Your task to perform on an android device: check android version Image 0: 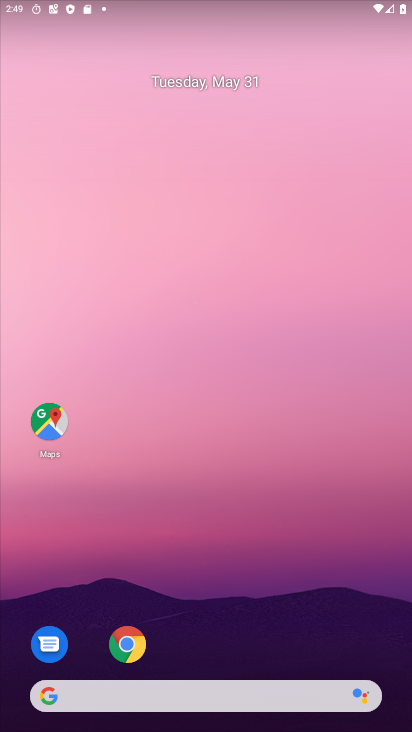
Step 0: drag from (394, 638) to (375, 90)
Your task to perform on an android device: check android version Image 1: 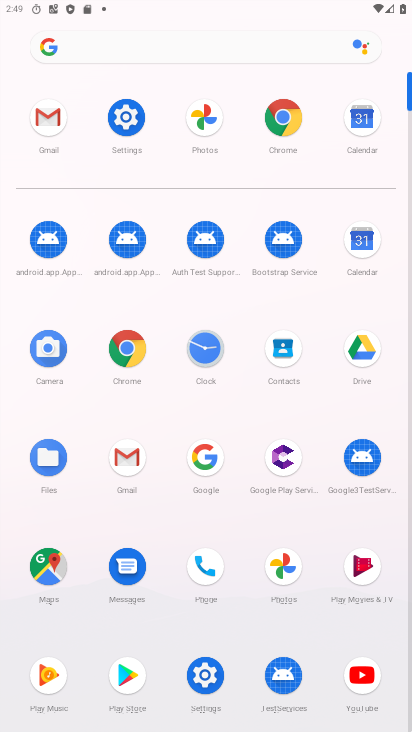
Step 1: click (142, 118)
Your task to perform on an android device: check android version Image 2: 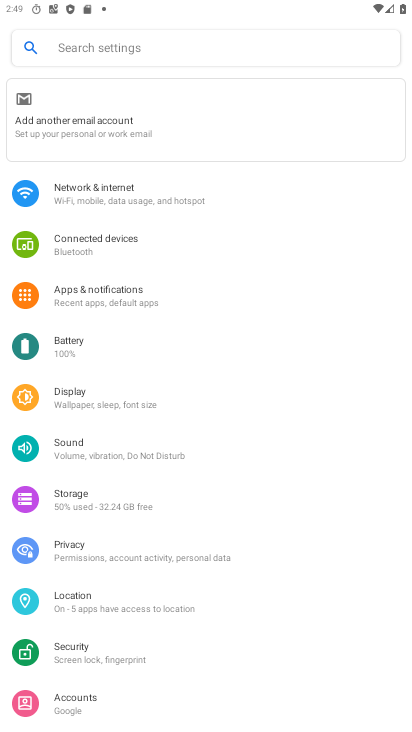
Step 2: drag from (291, 651) to (310, 291)
Your task to perform on an android device: check android version Image 3: 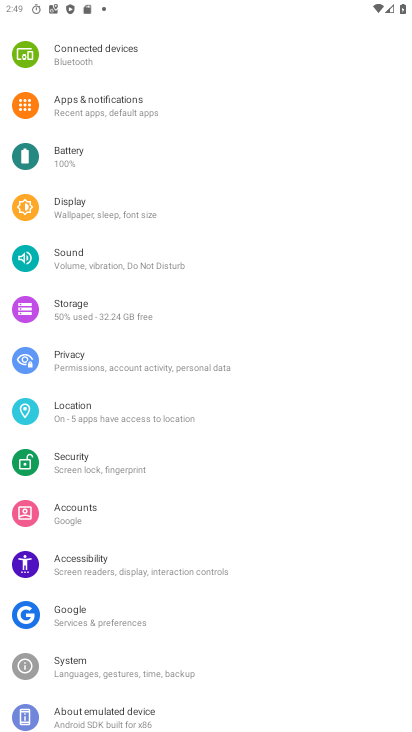
Step 3: click (110, 713)
Your task to perform on an android device: check android version Image 4: 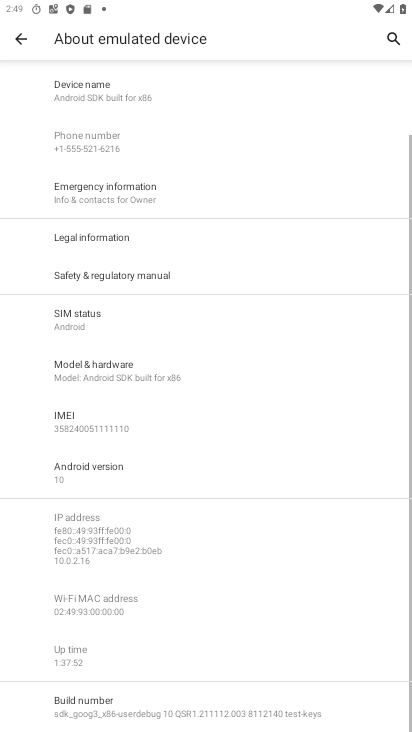
Step 4: click (125, 478)
Your task to perform on an android device: check android version Image 5: 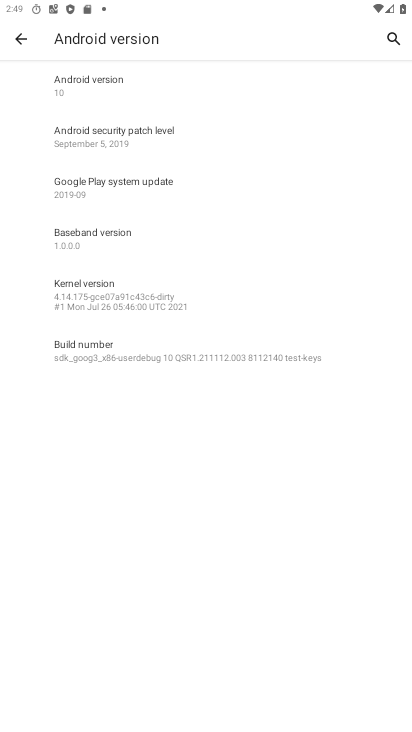
Step 5: click (136, 82)
Your task to perform on an android device: check android version Image 6: 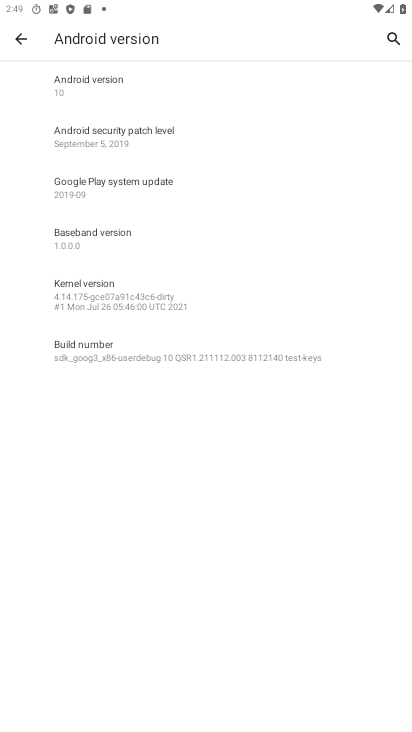
Step 6: task complete